Your task to perform on an android device: Open the map Image 0: 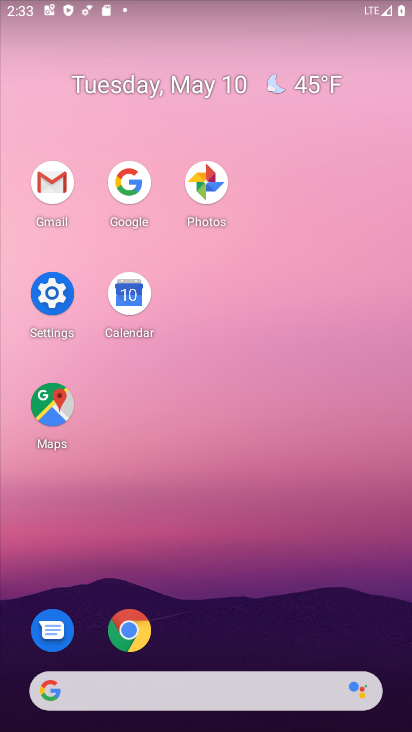
Step 0: click (56, 410)
Your task to perform on an android device: Open the map Image 1: 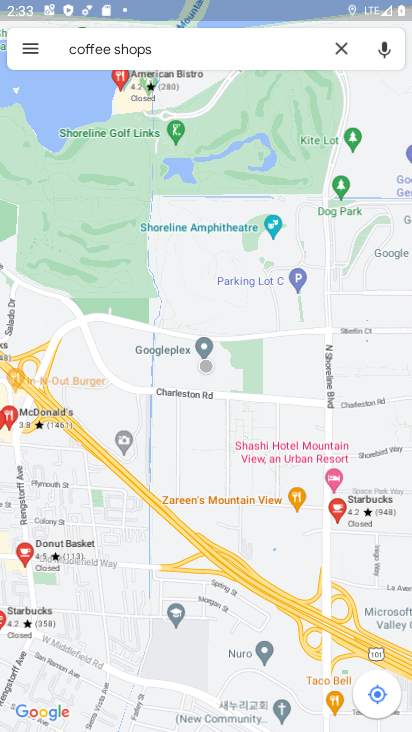
Step 1: task complete